Your task to perform on an android device: Open Google Maps Image 0: 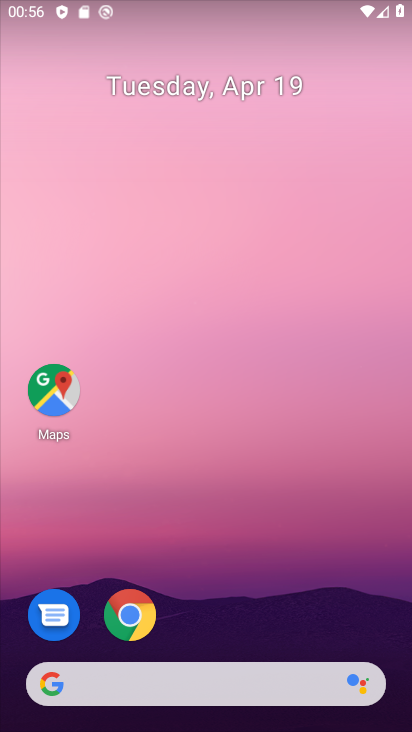
Step 0: click (258, 214)
Your task to perform on an android device: Open Google Maps Image 1: 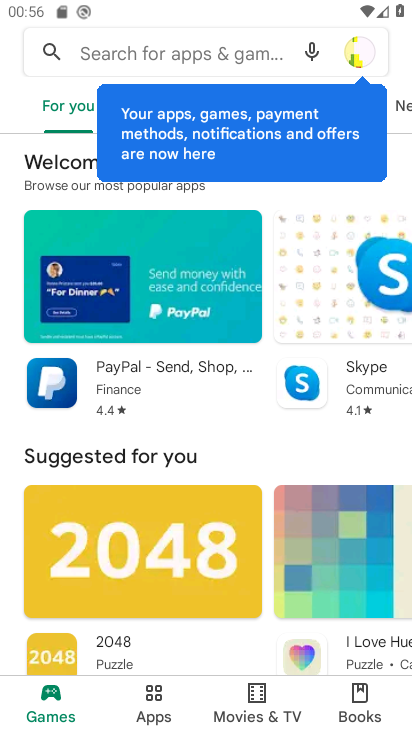
Step 1: press home button
Your task to perform on an android device: Open Google Maps Image 2: 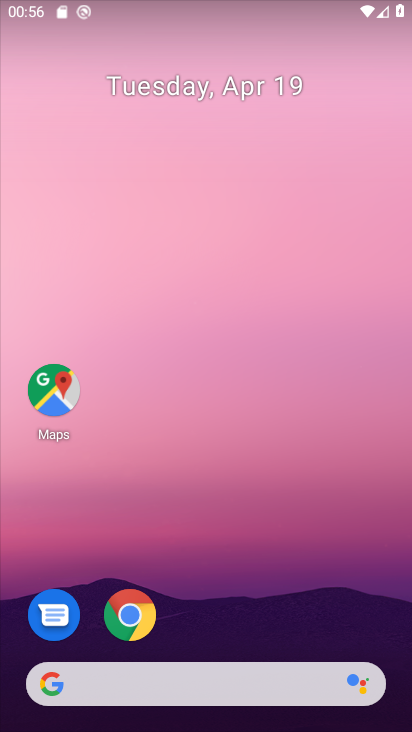
Step 2: click (56, 390)
Your task to perform on an android device: Open Google Maps Image 3: 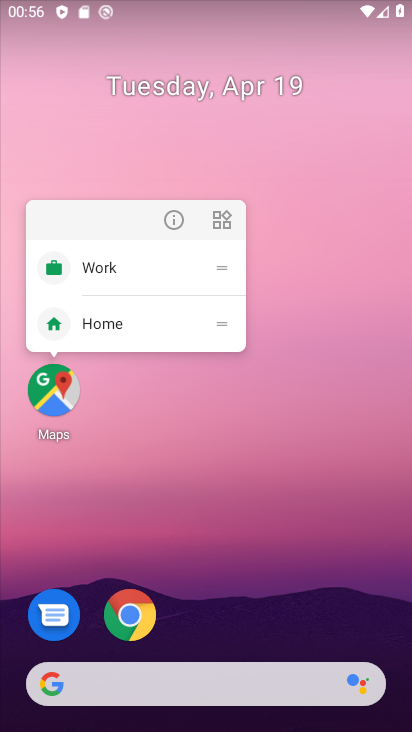
Step 3: click (60, 405)
Your task to perform on an android device: Open Google Maps Image 4: 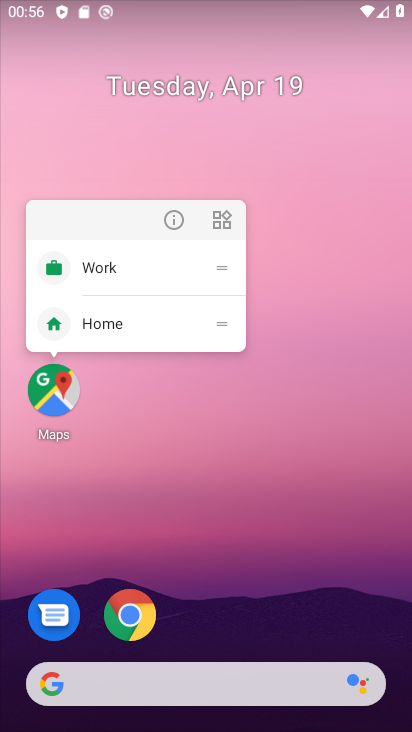
Step 4: click (50, 407)
Your task to perform on an android device: Open Google Maps Image 5: 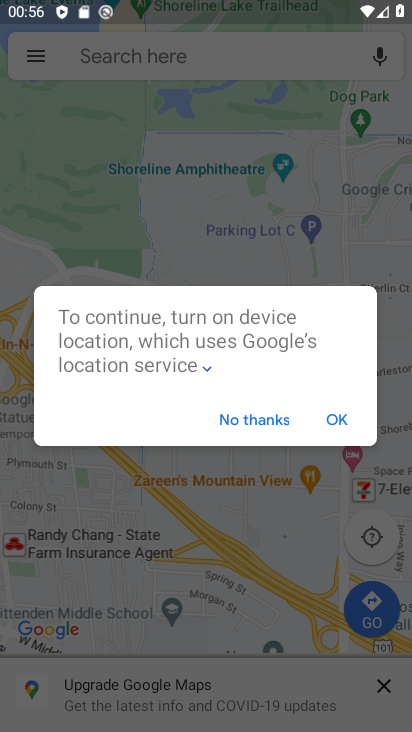
Step 5: task complete